Your task to perform on an android device: turn on the 12-hour format for clock Image 0: 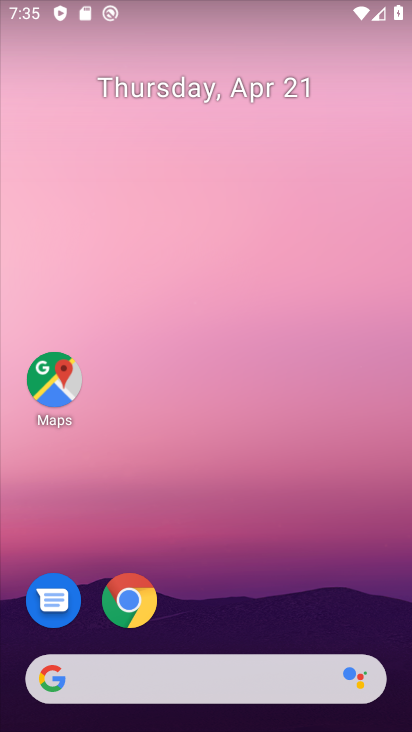
Step 0: drag from (171, 441) to (392, 22)
Your task to perform on an android device: turn on the 12-hour format for clock Image 1: 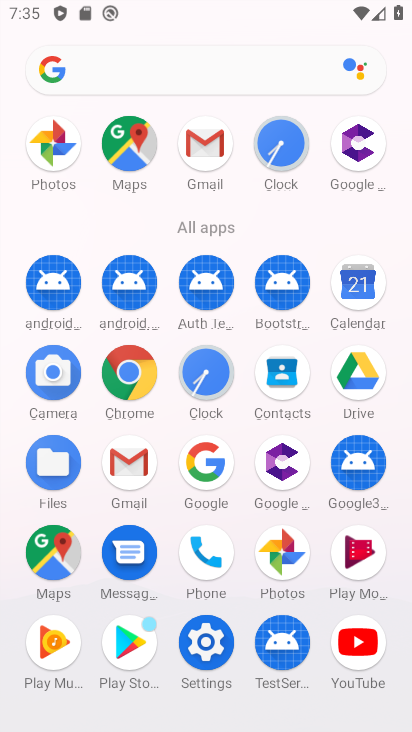
Step 1: click (282, 152)
Your task to perform on an android device: turn on the 12-hour format for clock Image 2: 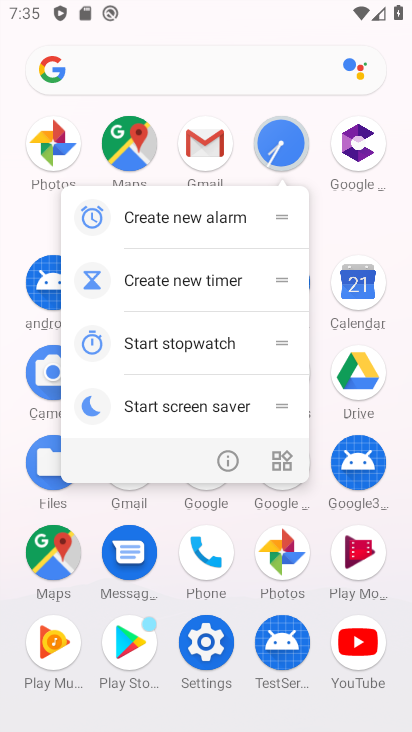
Step 2: click (290, 138)
Your task to perform on an android device: turn on the 12-hour format for clock Image 3: 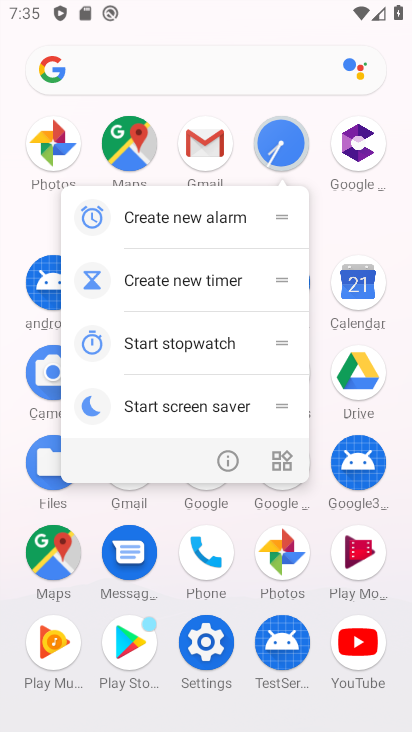
Step 3: click (290, 148)
Your task to perform on an android device: turn on the 12-hour format for clock Image 4: 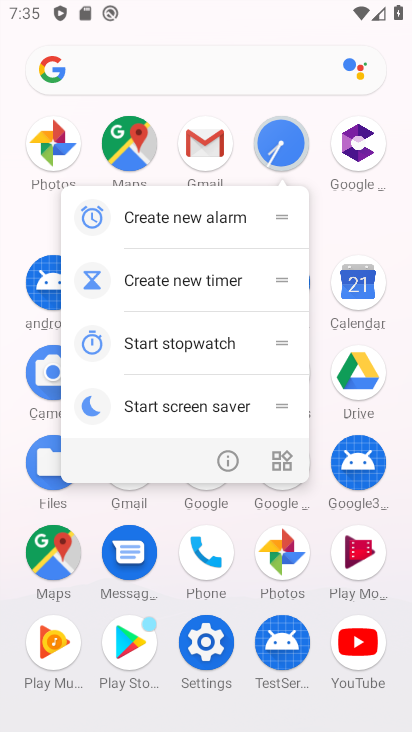
Step 4: click (227, 456)
Your task to perform on an android device: turn on the 12-hour format for clock Image 5: 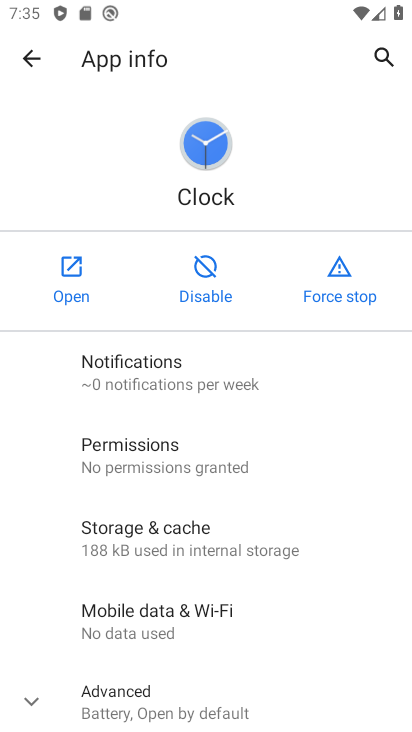
Step 5: click (78, 270)
Your task to perform on an android device: turn on the 12-hour format for clock Image 6: 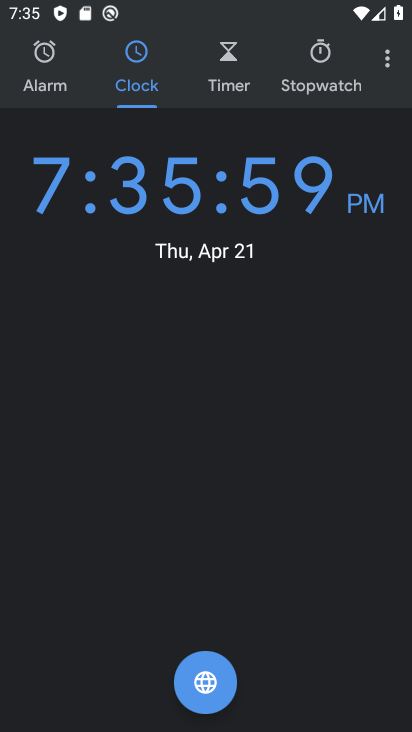
Step 6: click (388, 60)
Your task to perform on an android device: turn on the 12-hour format for clock Image 7: 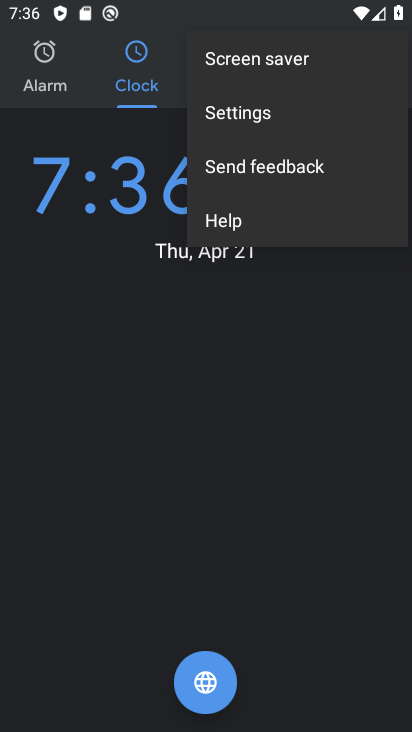
Step 7: click (285, 112)
Your task to perform on an android device: turn on the 12-hour format for clock Image 8: 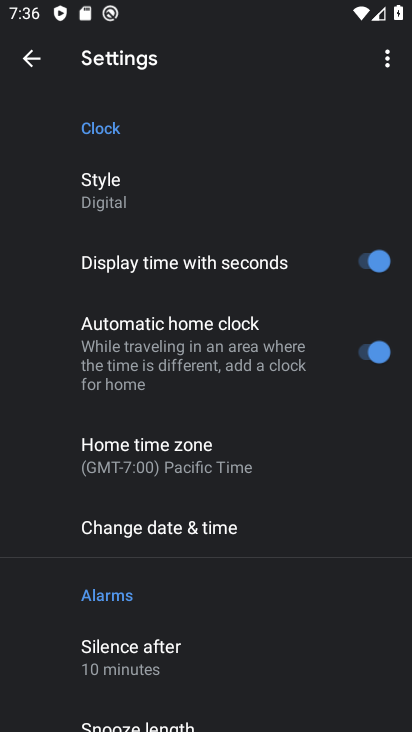
Step 8: drag from (180, 691) to (279, 312)
Your task to perform on an android device: turn on the 12-hour format for clock Image 9: 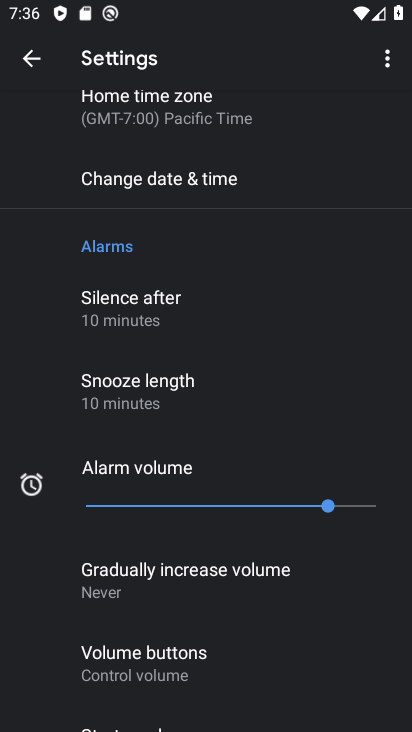
Step 9: drag from (132, 609) to (251, 267)
Your task to perform on an android device: turn on the 12-hour format for clock Image 10: 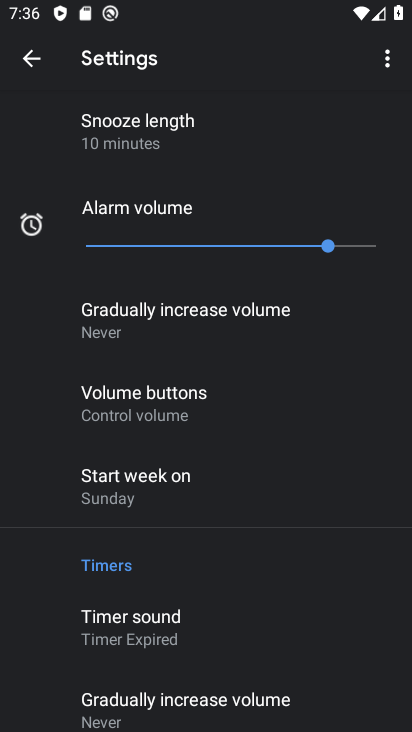
Step 10: drag from (190, 638) to (300, 326)
Your task to perform on an android device: turn on the 12-hour format for clock Image 11: 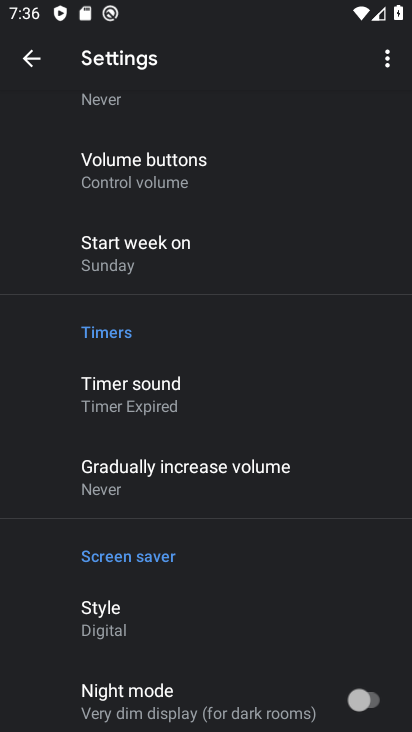
Step 11: drag from (244, 196) to (135, 655)
Your task to perform on an android device: turn on the 12-hour format for clock Image 12: 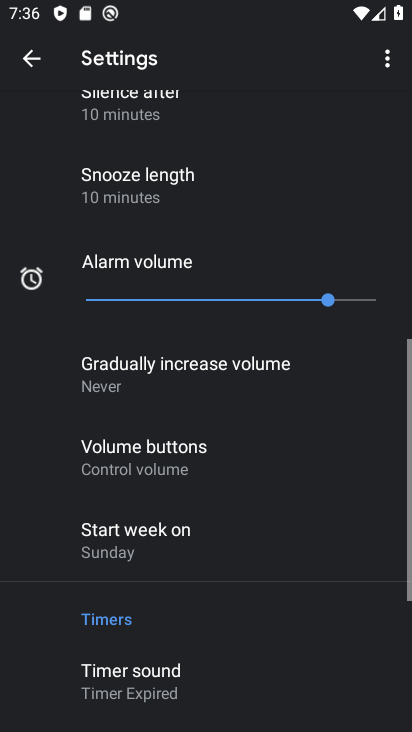
Step 12: drag from (139, 346) to (212, 729)
Your task to perform on an android device: turn on the 12-hour format for clock Image 13: 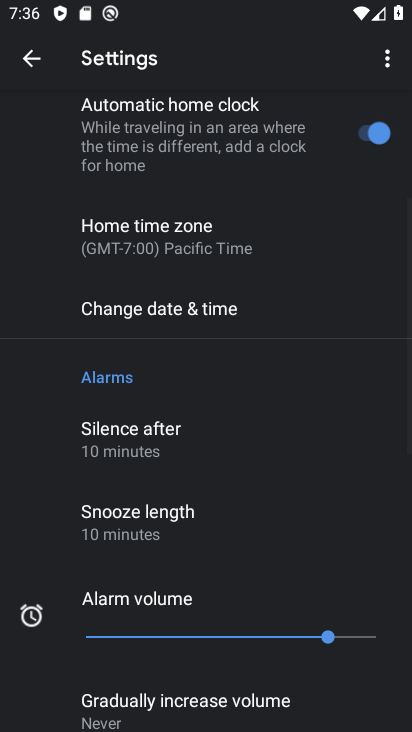
Step 13: drag from (223, 150) to (145, 731)
Your task to perform on an android device: turn on the 12-hour format for clock Image 14: 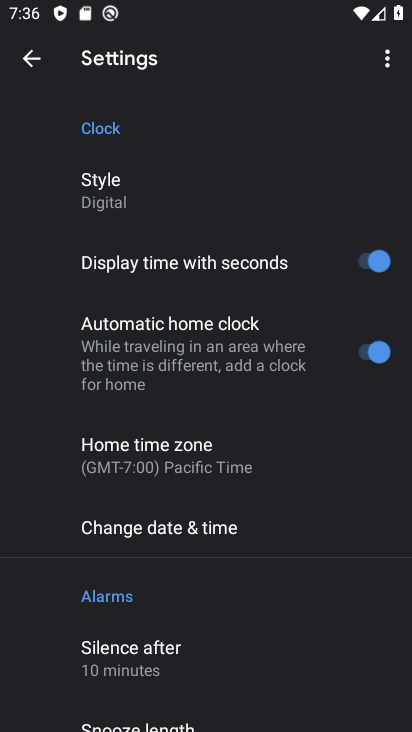
Step 14: click (212, 522)
Your task to perform on an android device: turn on the 12-hour format for clock Image 15: 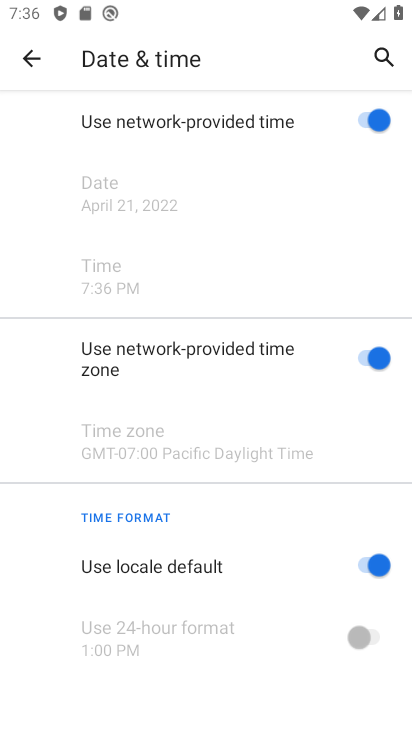
Step 15: task complete